Your task to perform on an android device: Open the phone app and click the voicemail tab. Image 0: 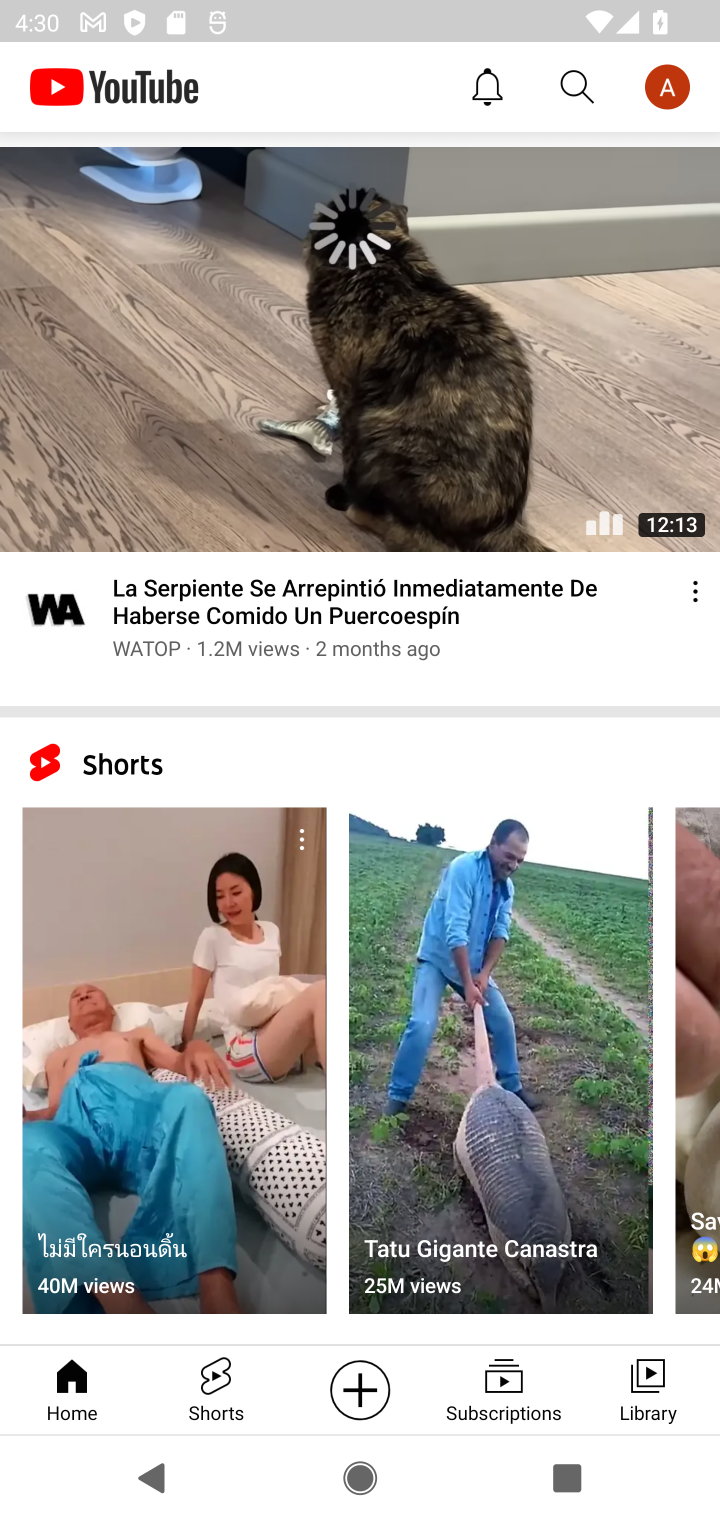
Step 0: press home button
Your task to perform on an android device: Open the phone app and click the voicemail tab. Image 1: 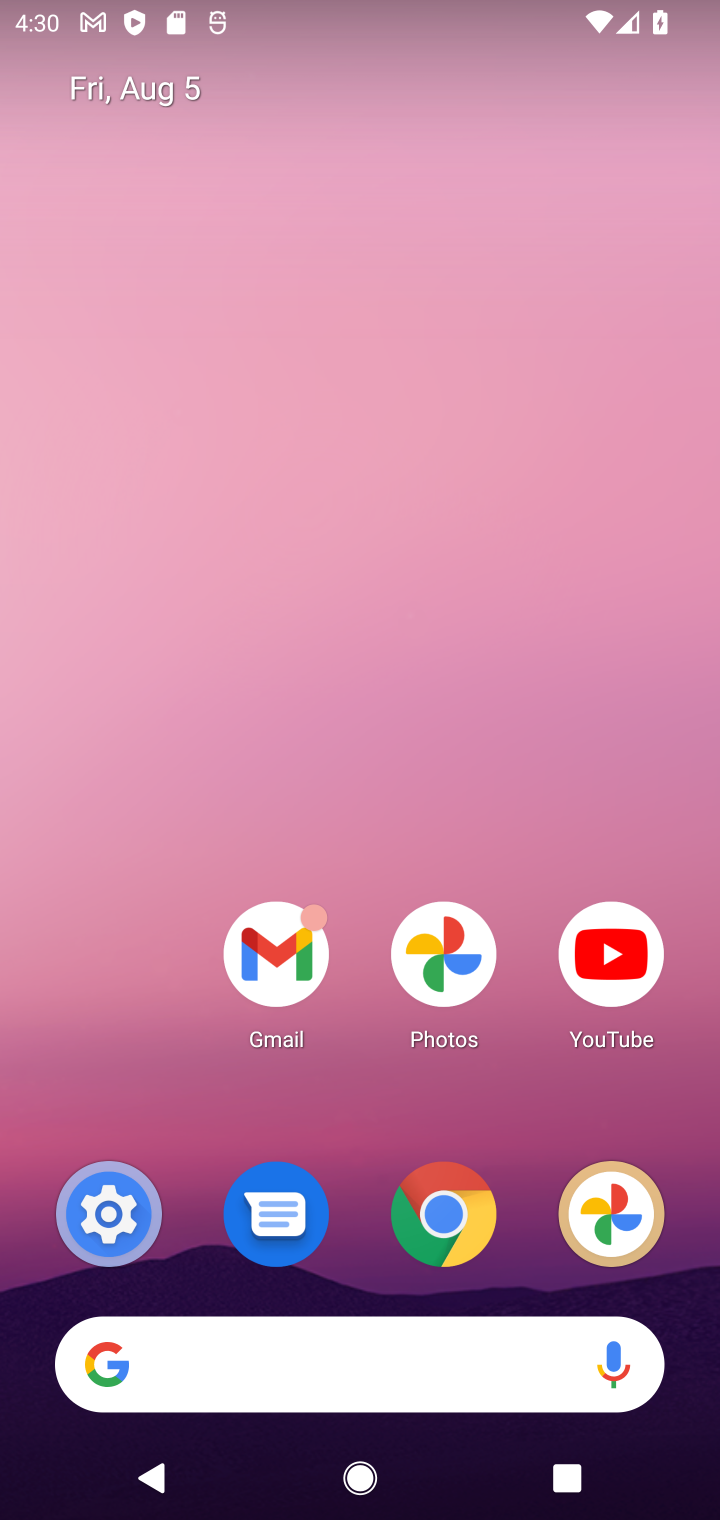
Step 1: drag from (148, 1043) to (191, 302)
Your task to perform on an android device: Open the phone app and click the voicemail tab. Image 2: 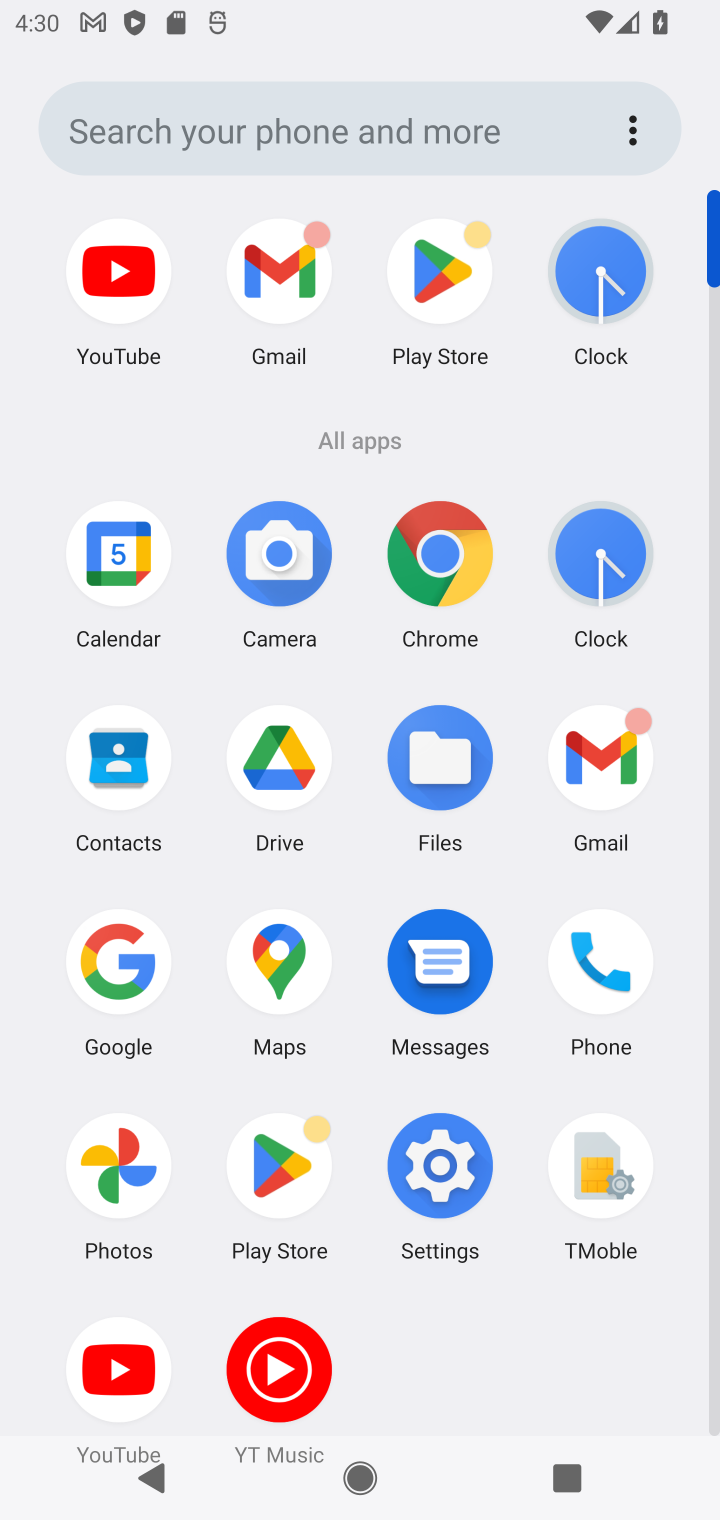
Step 2: click (593, 948)
Your task to perform on an android device: Open the phone app and click the voicemail tab. Image 3: 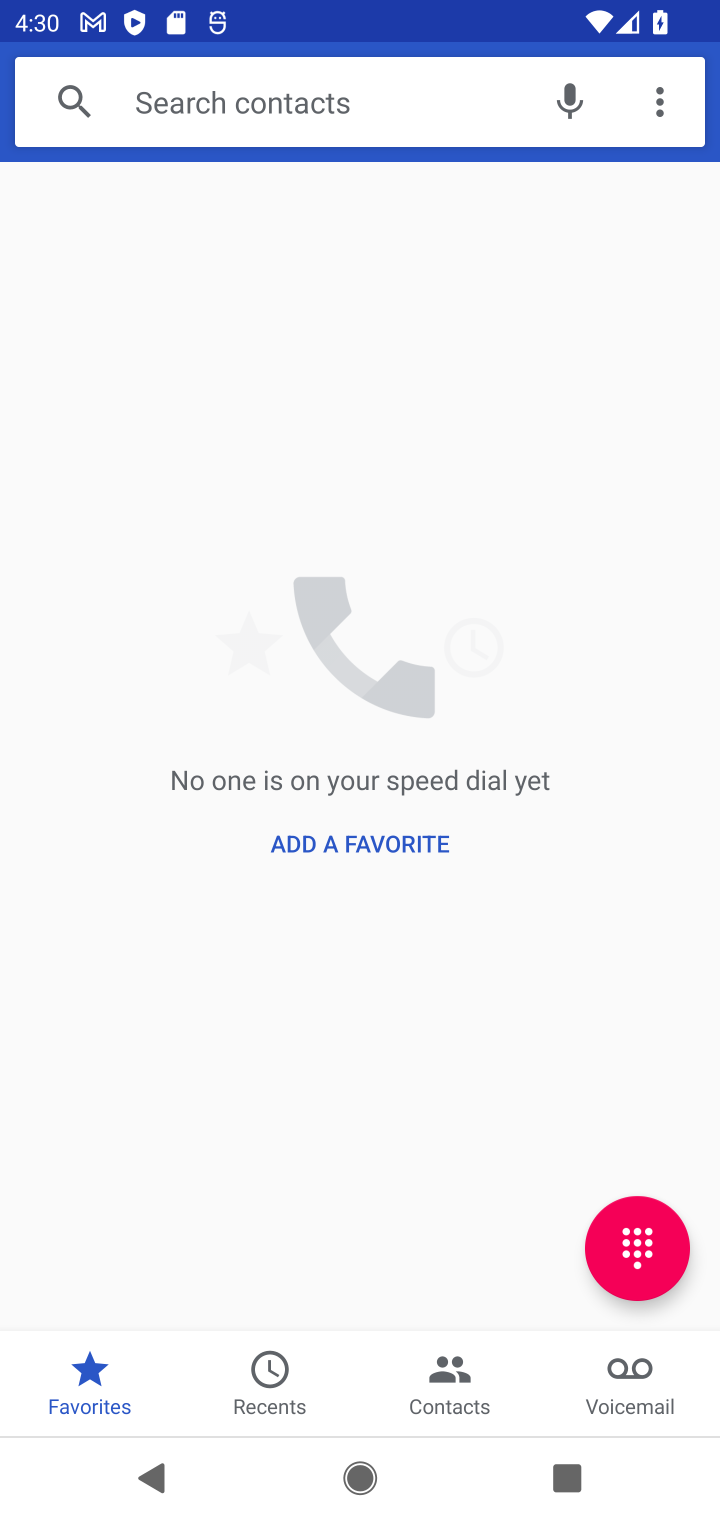
Step 3: click (636, 1374)
Your task to perform on an android device: Open the phone app and click the voicemail tab. Image 4: 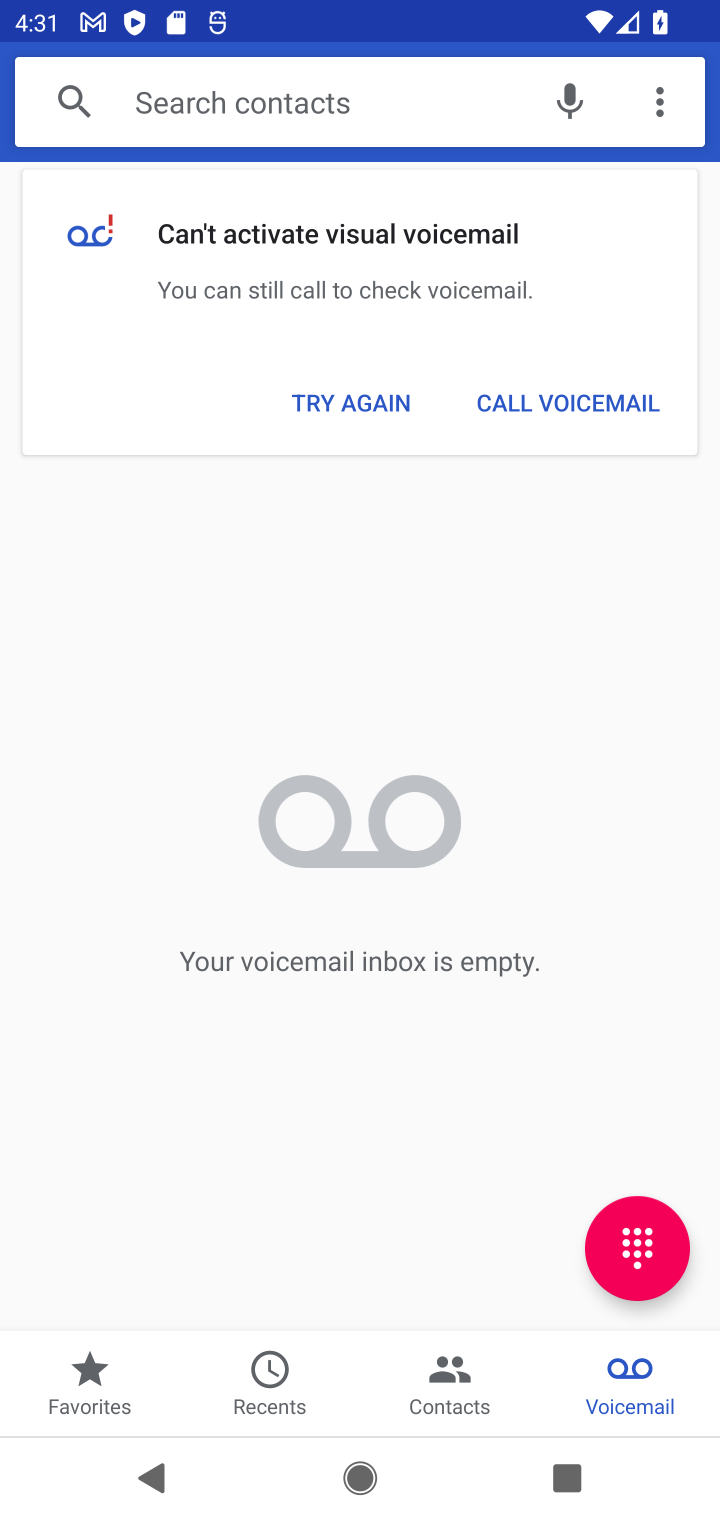
Step 4: task complete